Your task to perform on an android device: change the clock display to analog Image 0: 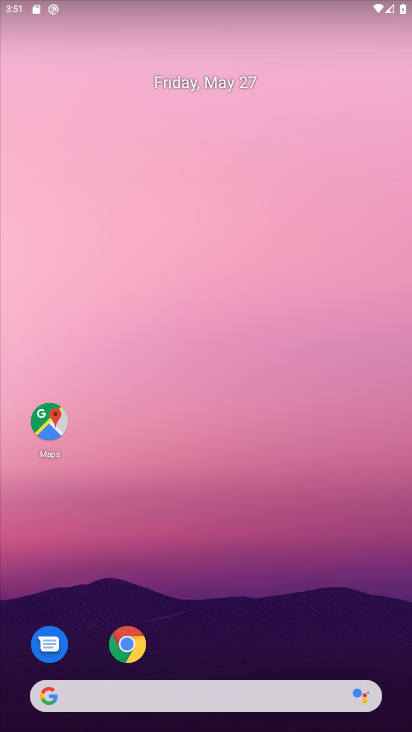
Step 0: drag from (270, 492) to (156, 5)
Your task to perform on an android device: change the clock display to analog Image 1: 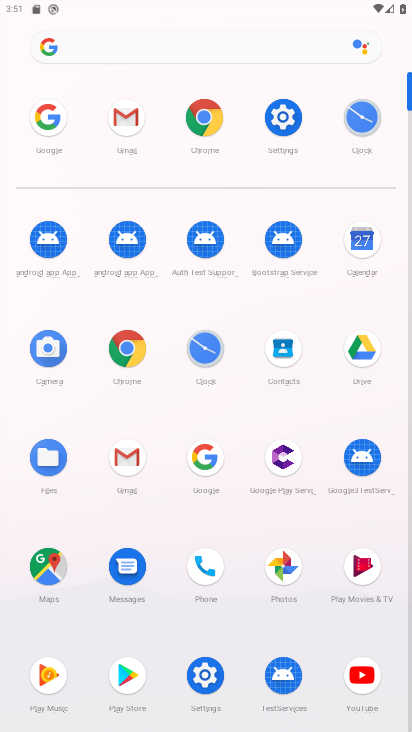
Step 1: click (210, 343)
Your task to perform on an android device: change the clock display to analog Image 2: 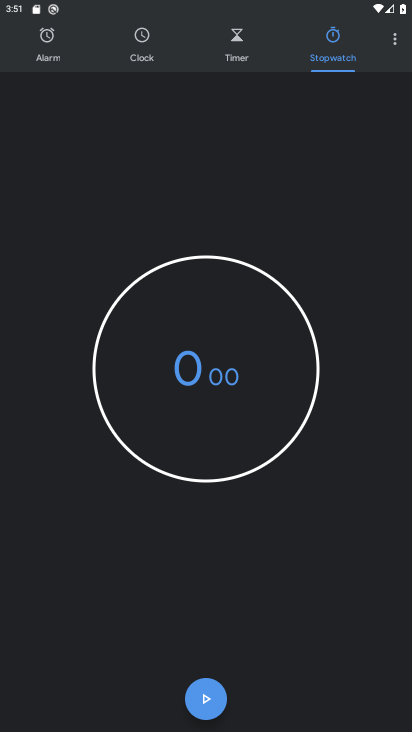
Step 2: click (396, 30)
Your task to perform on an android device: change the clock display to analog Image 3: 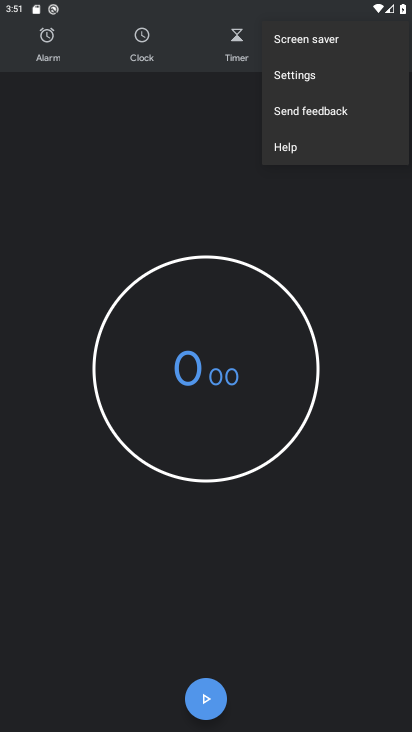
Step 3: click (327, 68)
Your task to perform on an android device: change the clock display to analog Image 4: 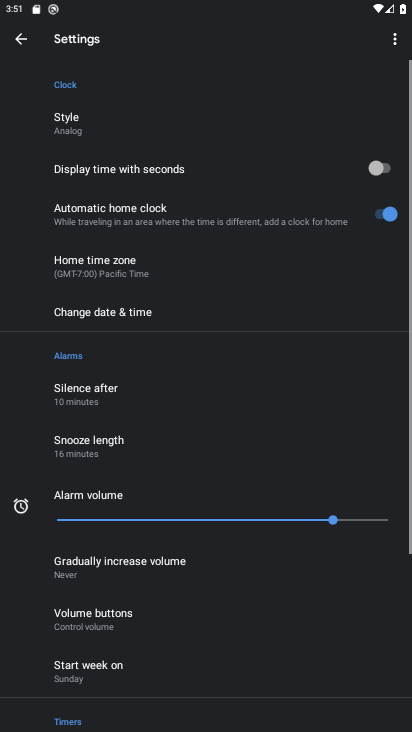
Step 4: click (75, 130)
Your task to perform on an android device: change the clock display to analog Image 5: 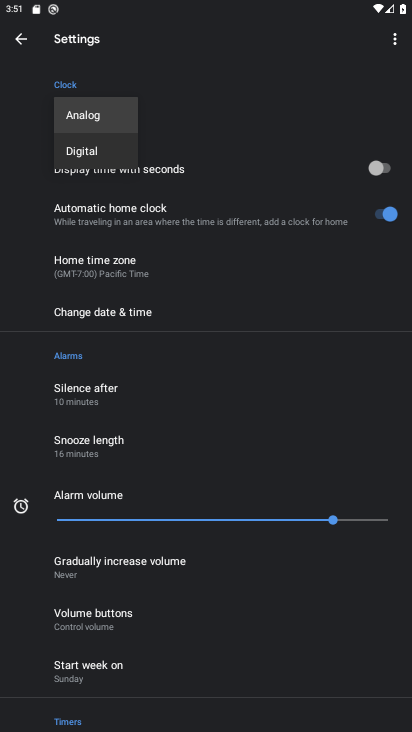
Step 5: task complete